Your task to perform on an android device: Open ESPN.com Image 0: 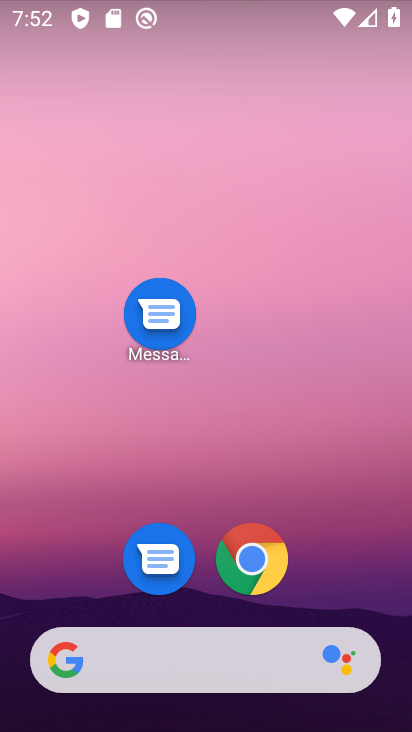
Step 0: drag from (380, 592) to (391, 241)
Your task to perform on an android device: Open ESPN.com Image 1: 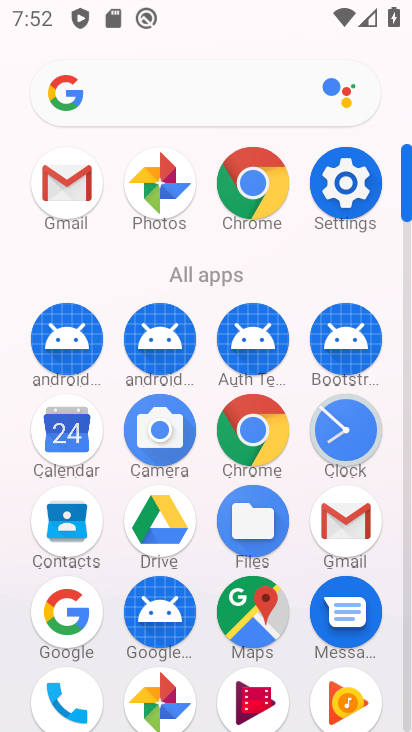
Step 1: click (269, 446)
Your task to perform on an android device: Open ESPN.com Image 2: 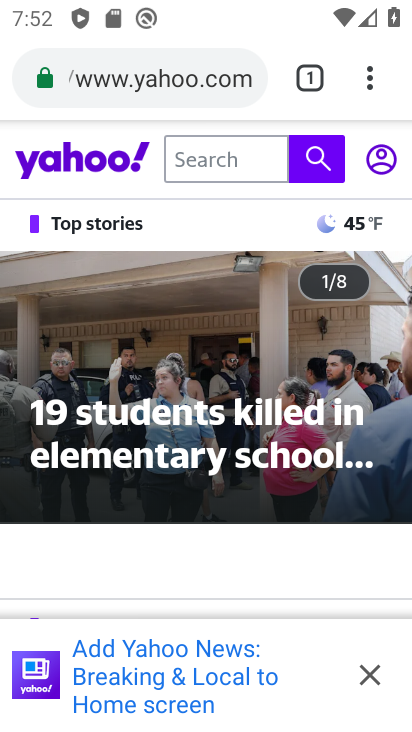
Step 2: click (170, 78)
Your task to perform on an android device: Open ESPN.com Image 3: 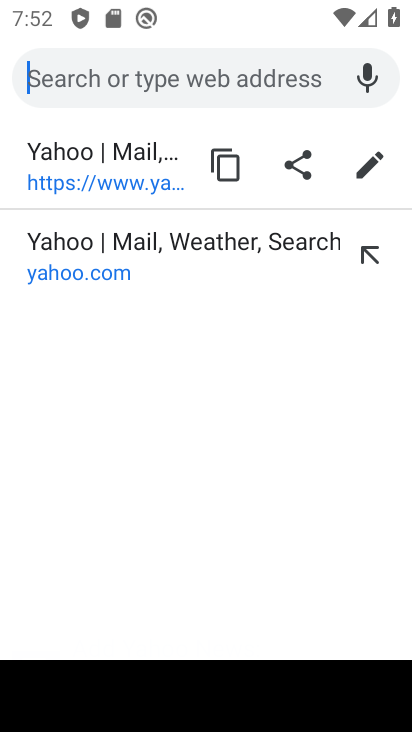
Step 3: type "espn.com"
Your task to perform on an android device: Open ESPN.com Image 4: 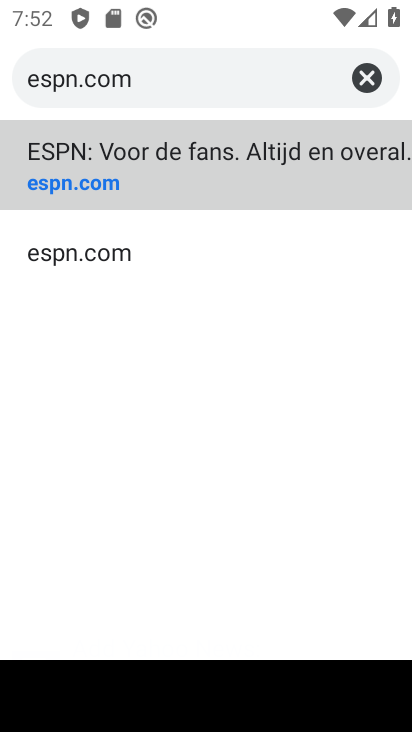
Step 4: click (108, 246)
Your task to perform on an android device: Open ESPN.com Image 5: 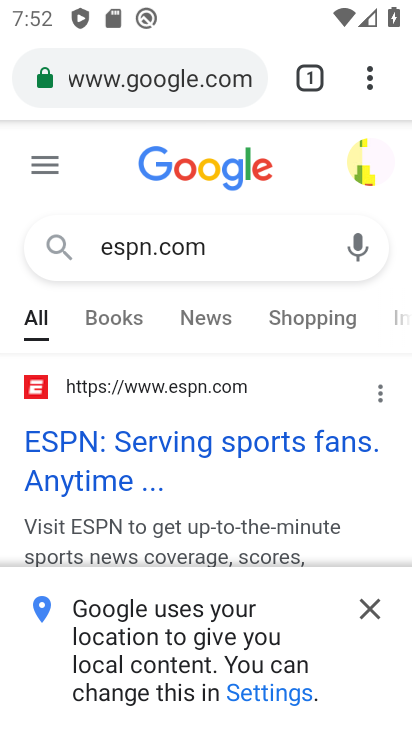
Step 5: task complete